Your task to perform on an android device: Search for alienware area 51 on newegg, select the first entry, add it to the cart, then select checkout. Image 0: 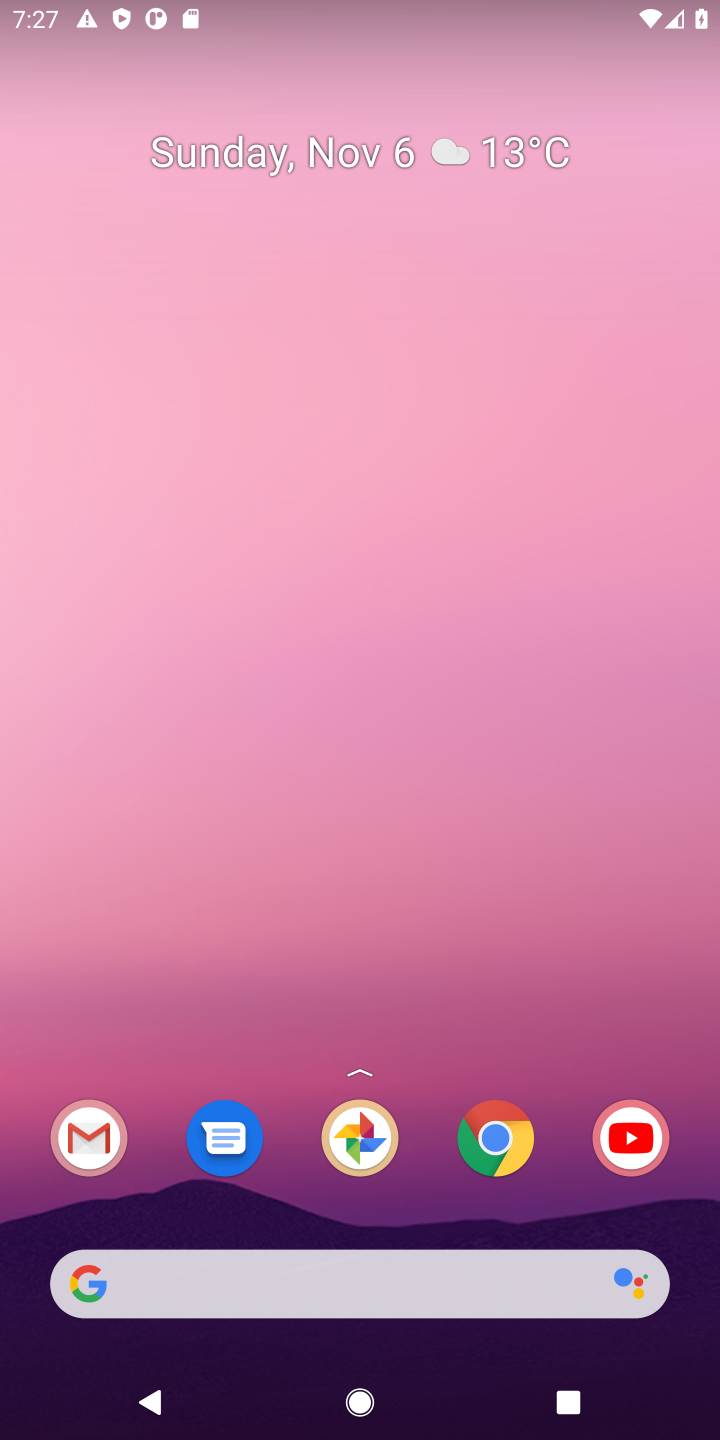
Step 0: click (485, 1136)
Your task to perform on an android device: Search for alienware area 51 on newegg, select the first entry, add it to the cart, then select checkout. Image 1: 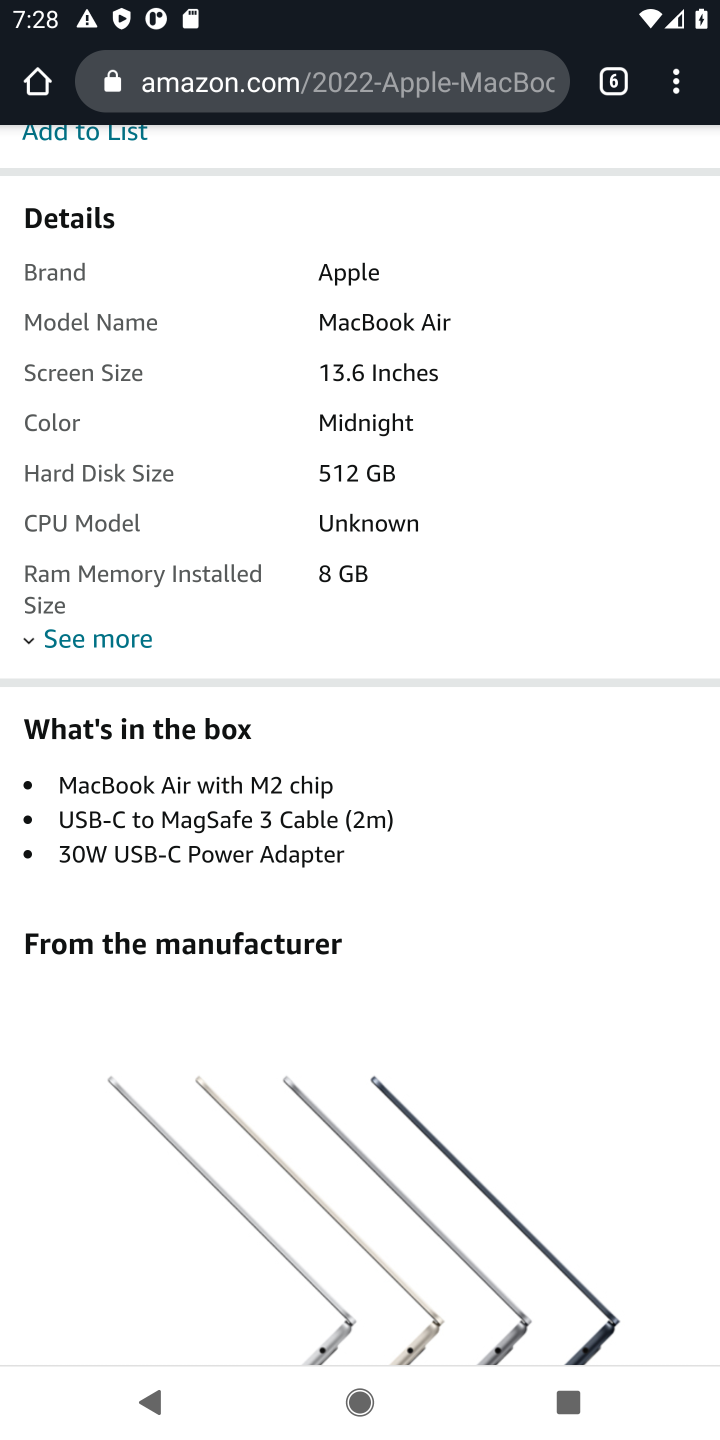
Step 1: click (616, 89)
Your task to perform on an android device: Search for alienware area 51 on newegg, select the first entry, add it to the cart, then select checkout. Image 2: 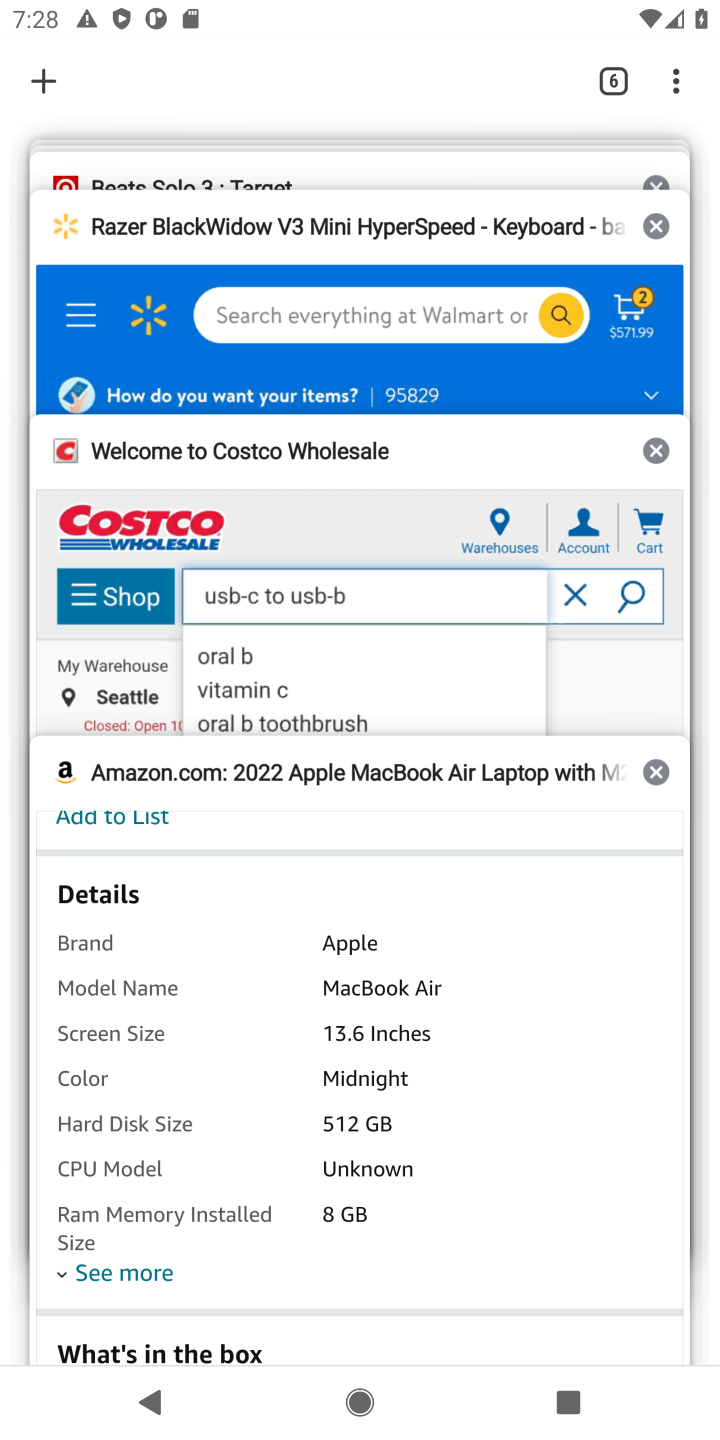
Step 2: drag from (363, 268) to (368, 1266)
Your task to perform on an android device: Search for alienware area 51 on newegg, select the first entry, add it to the cart, then select checkout. Image 3: 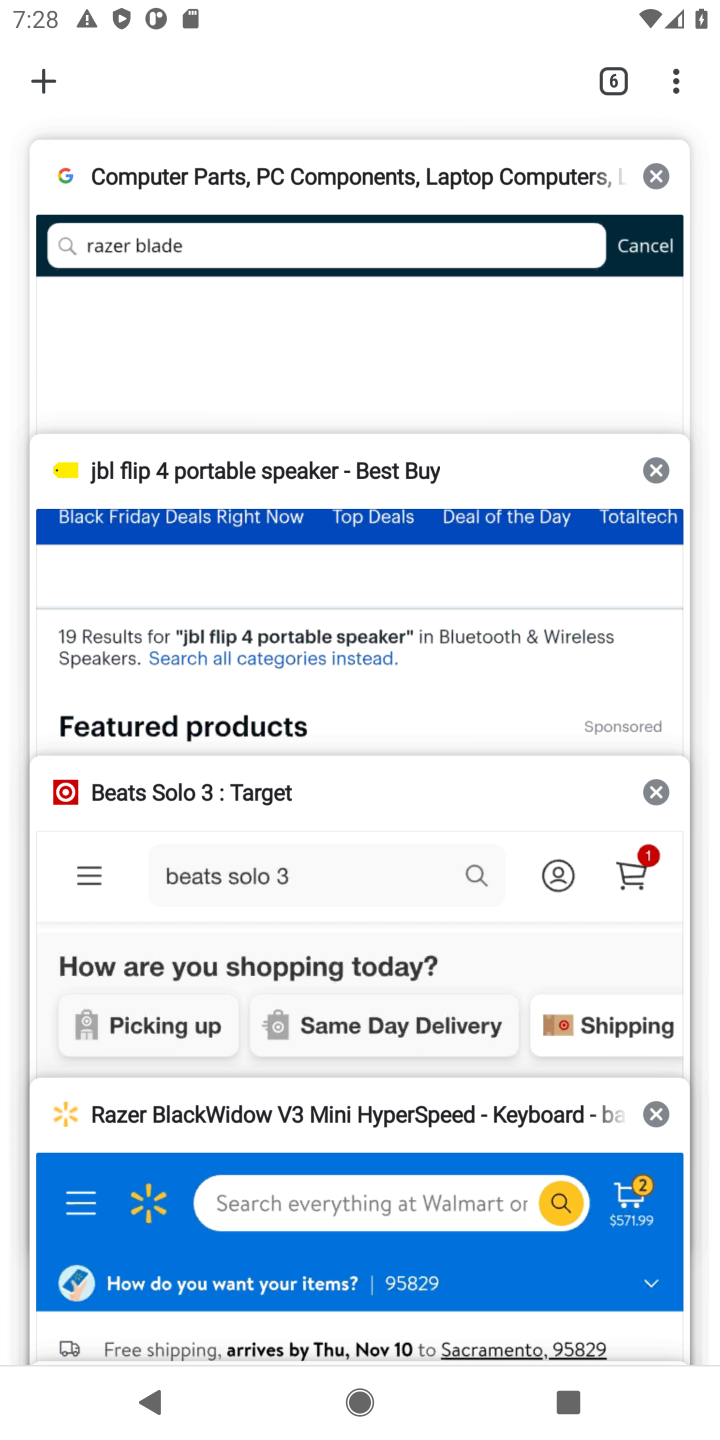
Step 3: drag from (369, 416) to (316, 1041)
Your task to perform on an android device: Search for alienware area 51 on newegg, select the first entry, add it to the cart, then select checkout. Image 4: 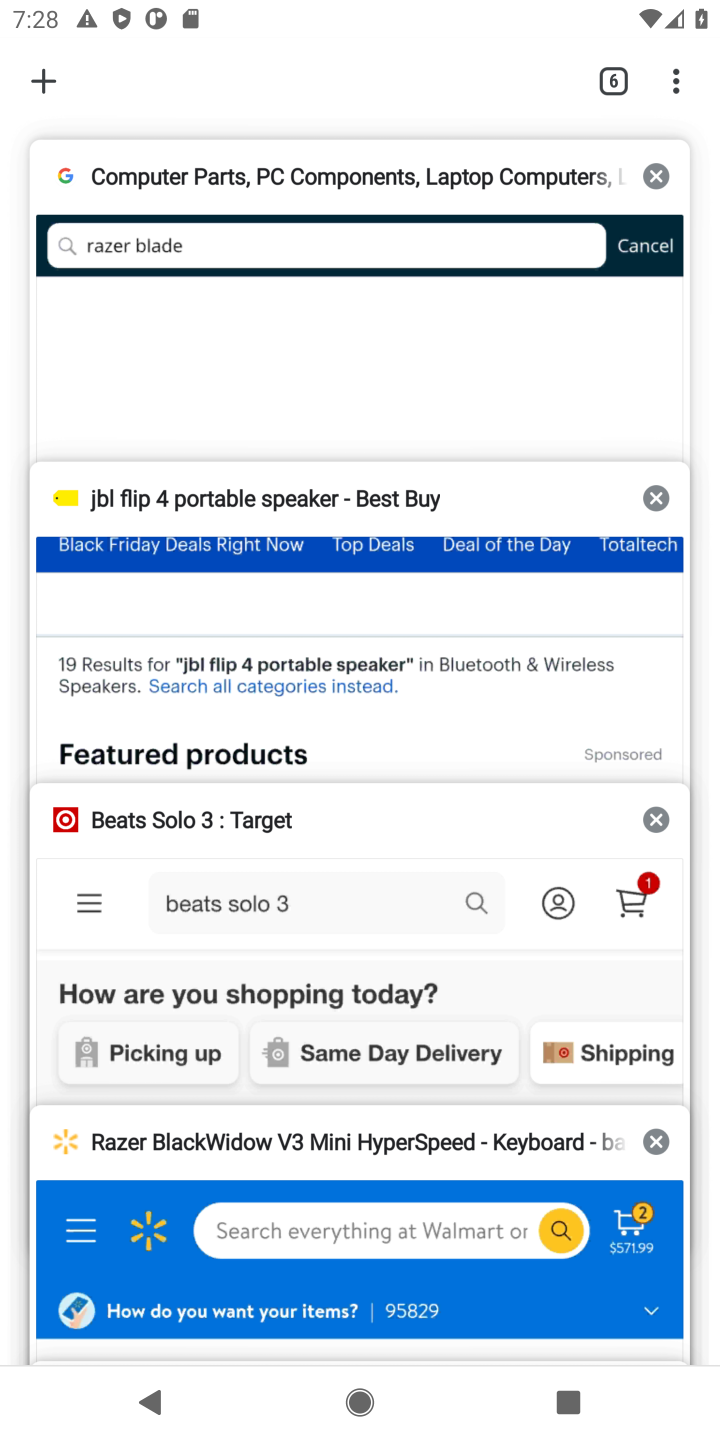
Step 4: click (49, 81)
Your task to perform on an android device: Search for alienware area 51 on newegg, select the first entry, add it to the cart, then select checkout. Image 5: 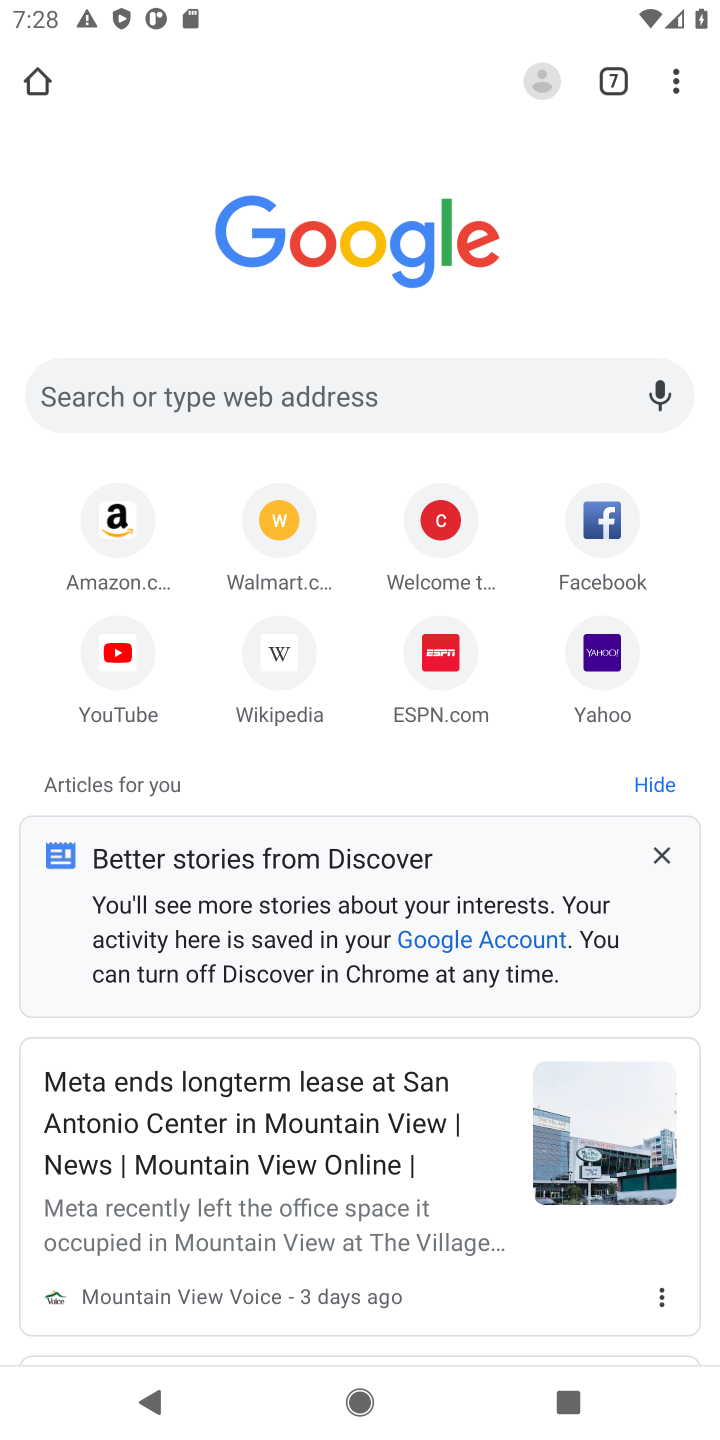
Step 5: click (202, 384)
Your task to perform on an android device: Search for alienware area 51 on newegg, select the first entry, add it to the cart, then select checkout. Image 6: 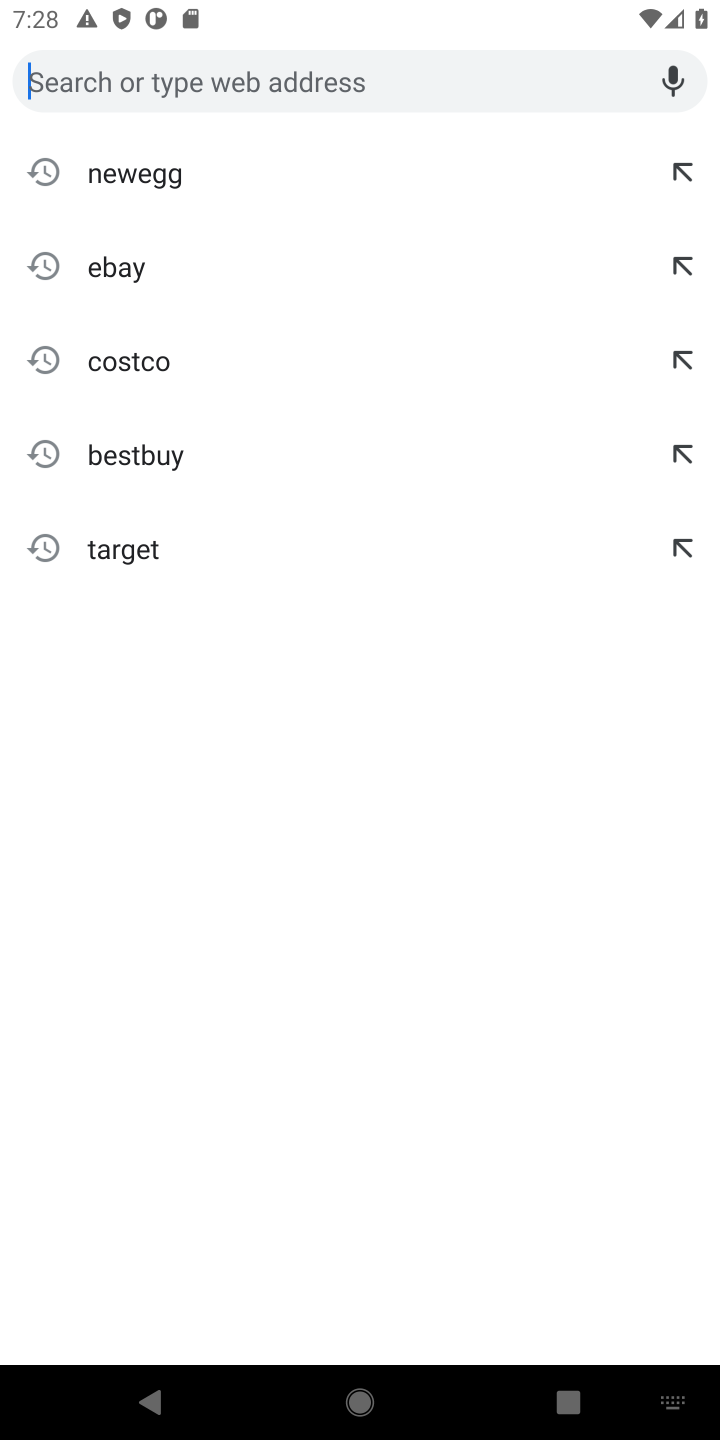
Step 6: click (174, 182)
Your task to perform on an android device: Search for alienware area 51 on newegg, select the first entry, add it to the cart, then select checkout. Image 7: 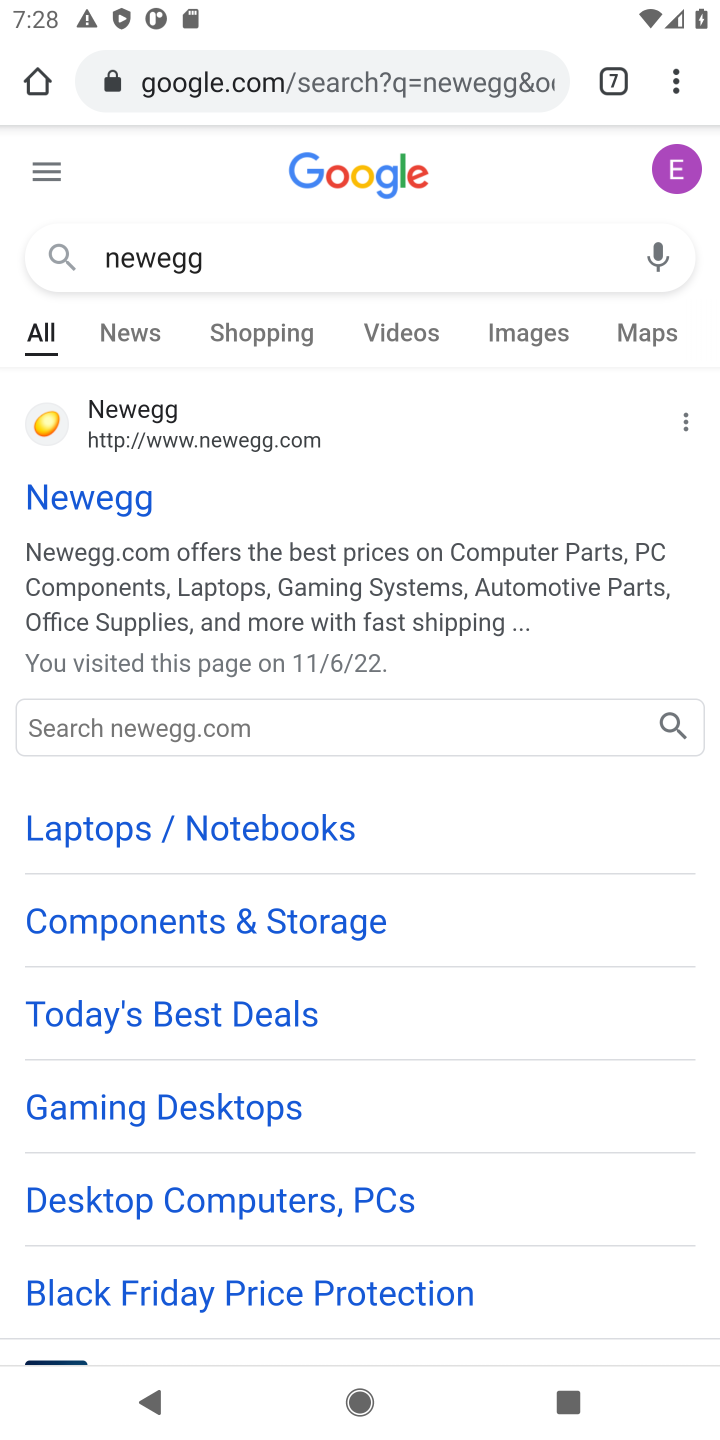
Step 7: click (64, 492)
Your task to perform on an android device: Search for alienware area 51 on newegg, select the first entry, add it to the cart, then select checkout. Image 8: 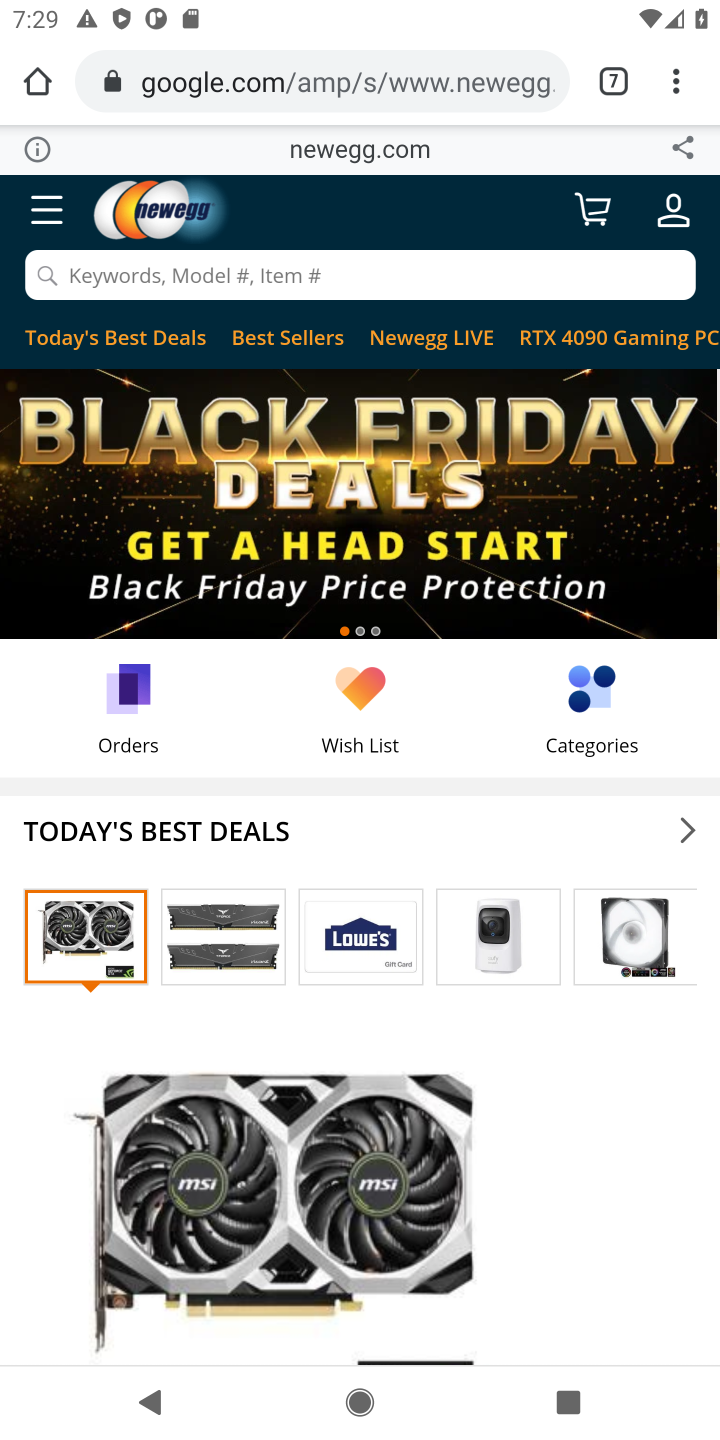
Step 8: click (179, 282)
Your task to perform on an android device: Search for alienware area 51 on newegg, select the first entry, add it to the cart, then select checkout. Image 9: 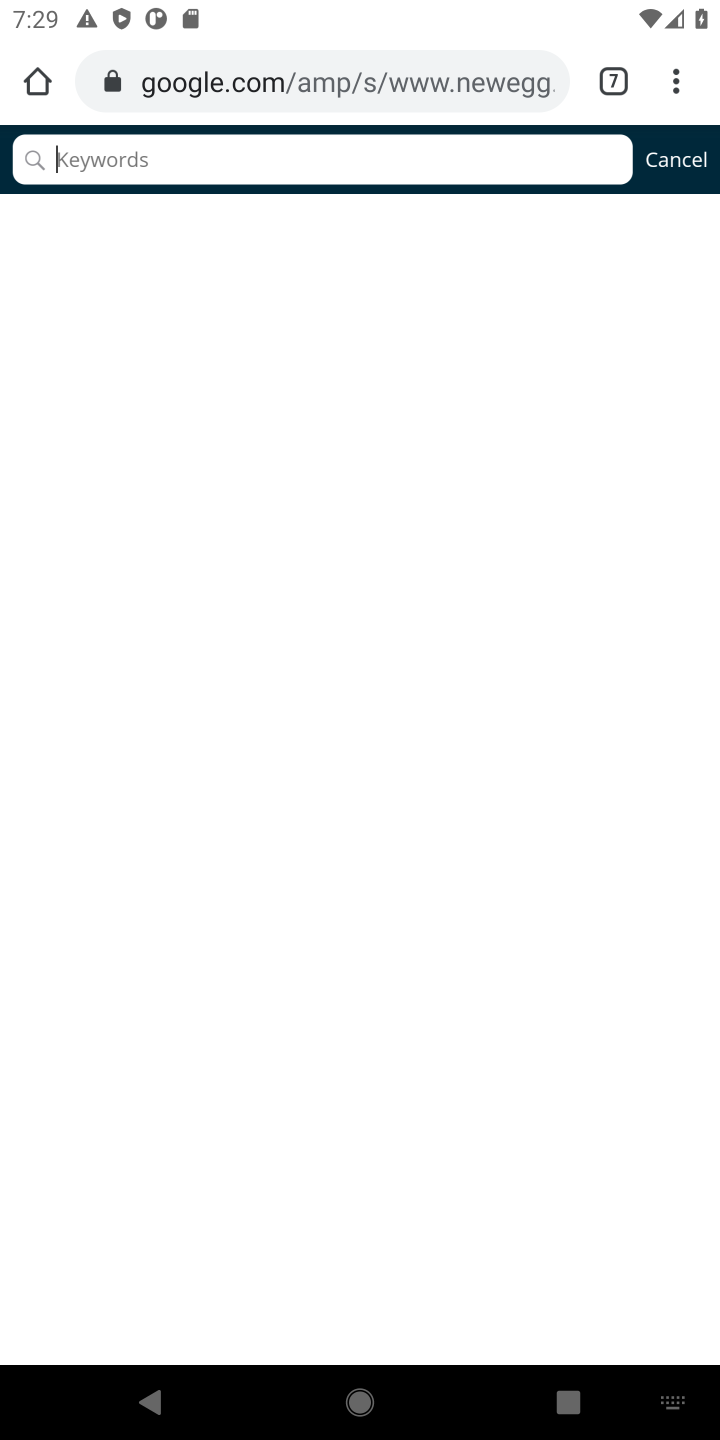
Step 9: click (129, 157)
Your task to perform on an android device: Search for alienware area 51 on newegg, select the first entry, add it to the cart, then select checkout. Image 10: 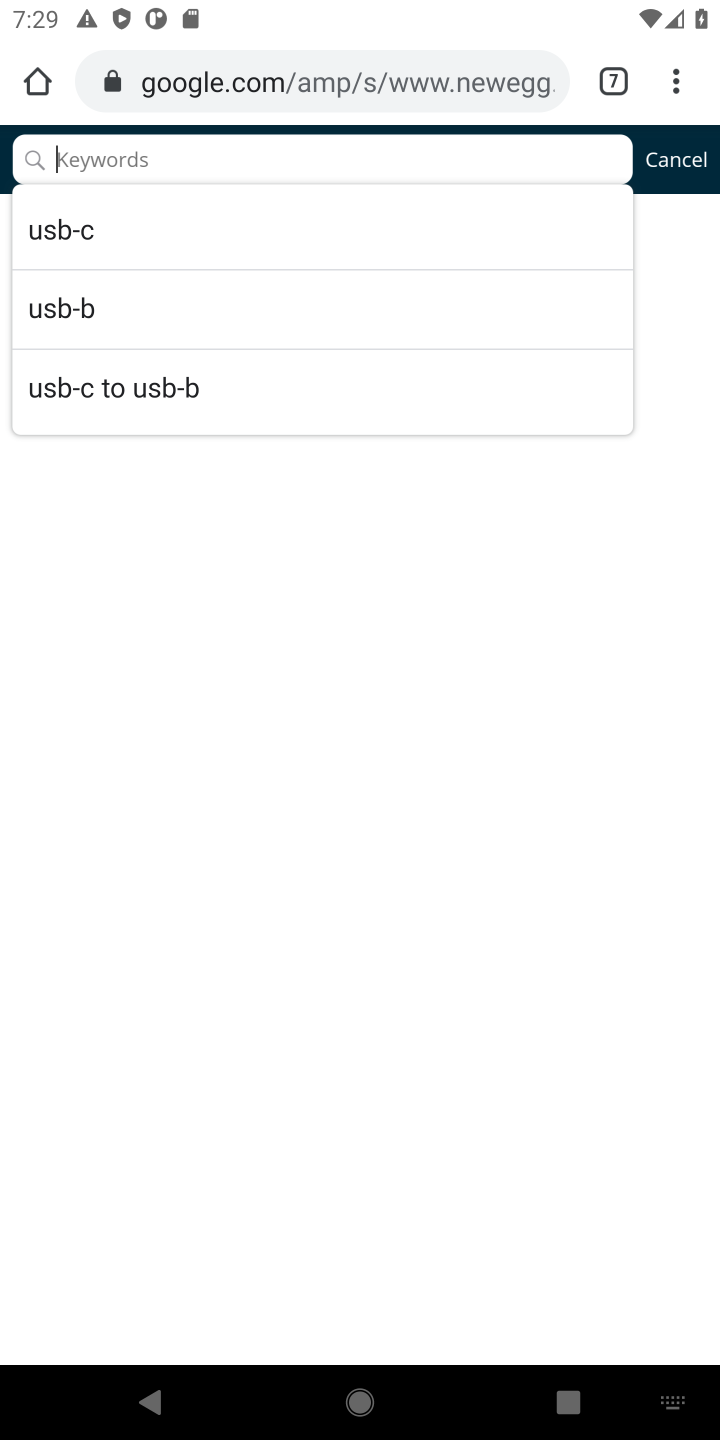
Step 10: type "alienware area 51 "
Your task to perform on an android device: Search for alienware area 51 on newegg, select the first entry, add it to the cart, then select checkout. Image 11: 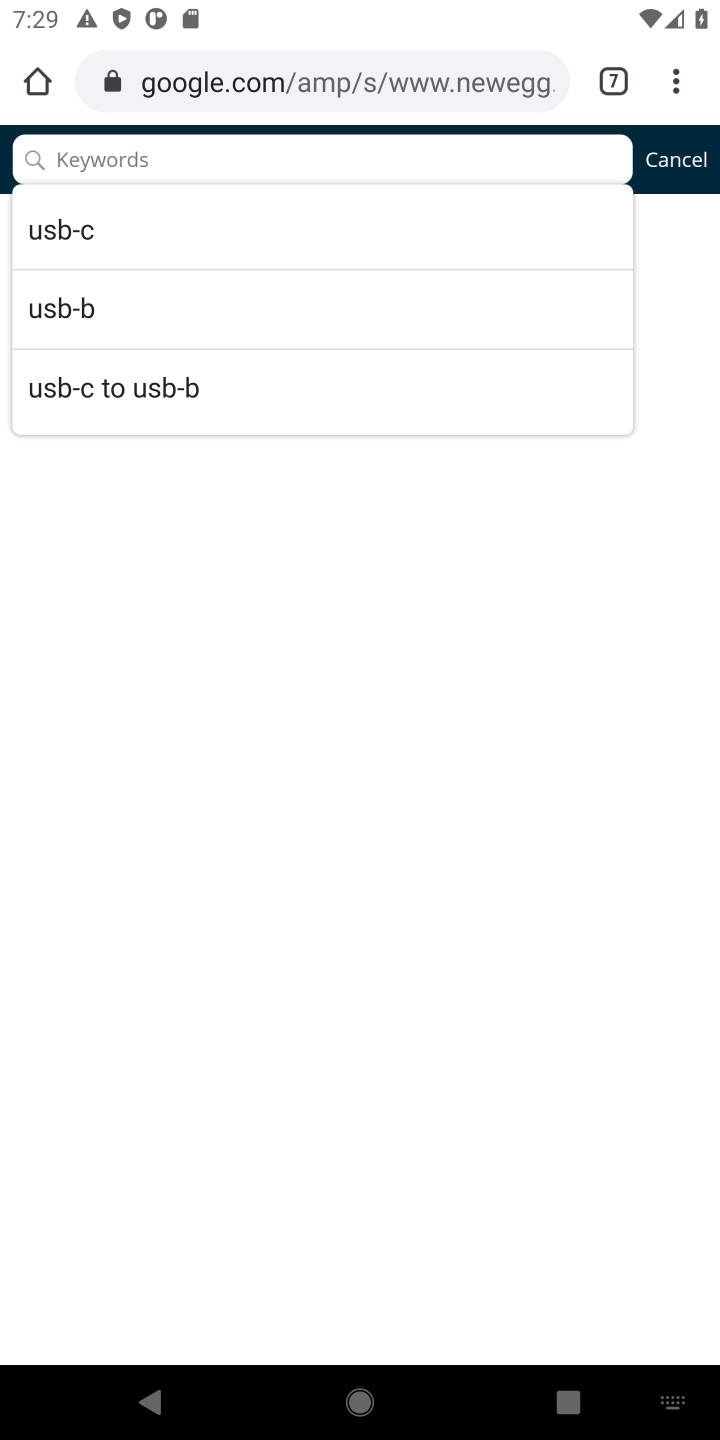
Step 11: click (439, 923)
Your task to perform on an android device: Search for alienware area 51 on newegg, select the first entry, add it to the cart, then select checkout. Image 12: 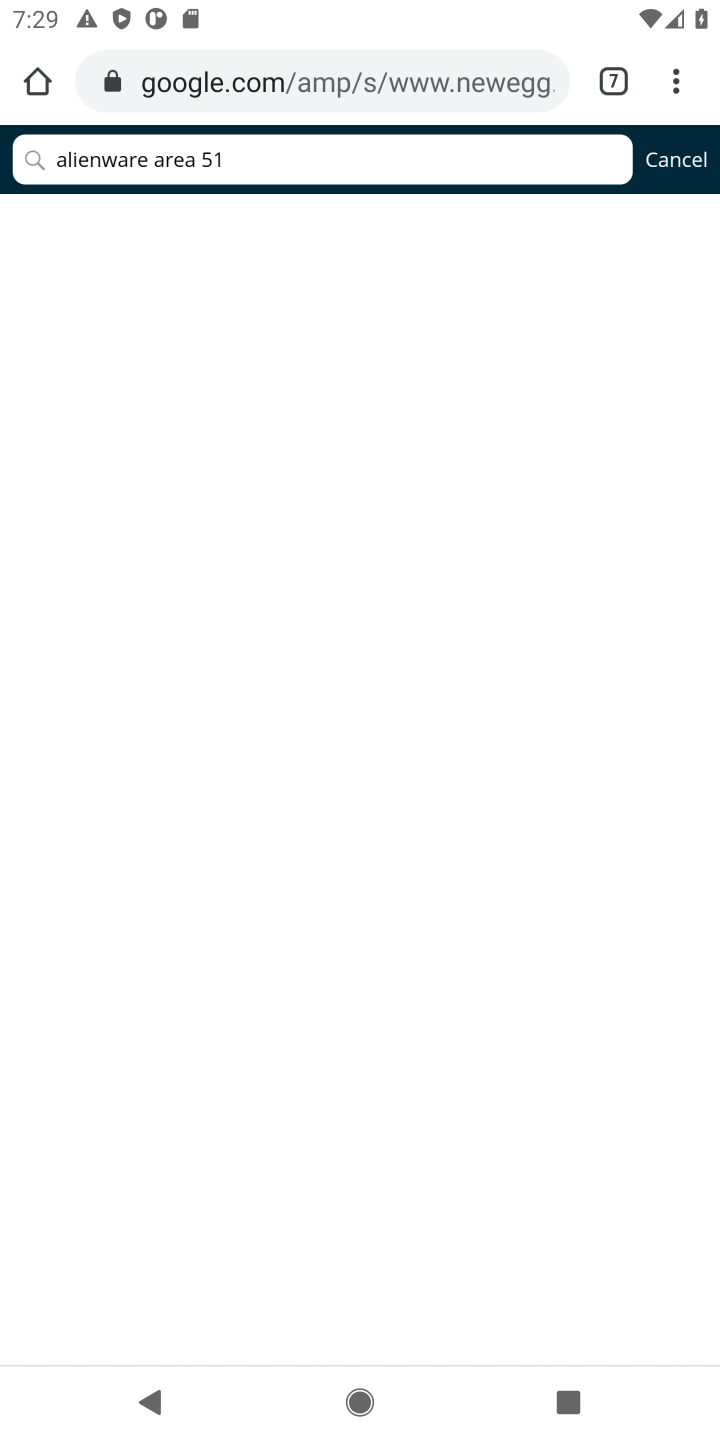
Step 12: task complete